Your task to perform on an android device: Open the web browser Image 0: 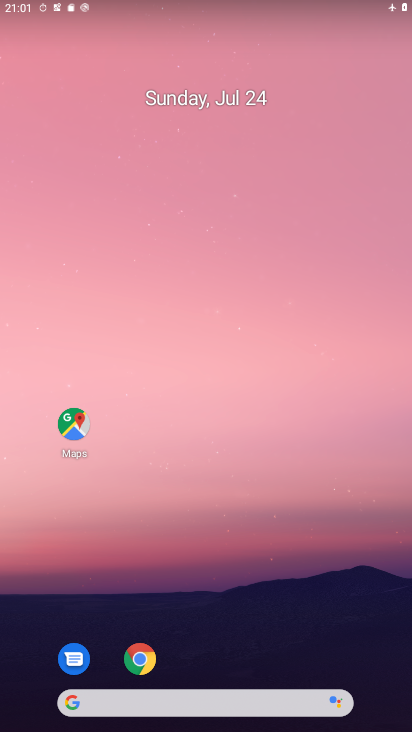
Step 0: click (138, 664)
Your task to perform on an android device: Open the web browser Image 1: 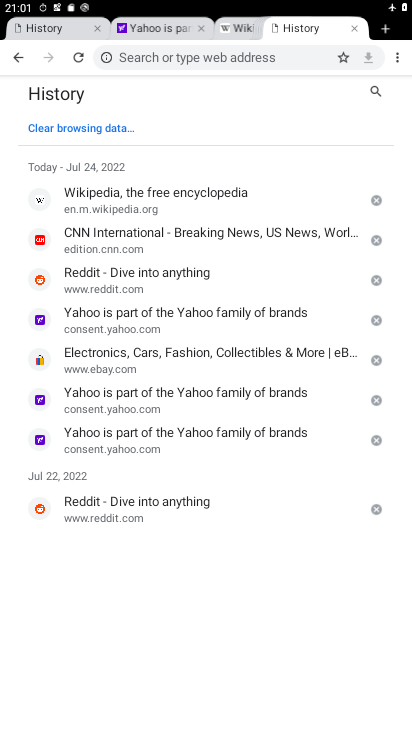
Step 1: task complete